Your task to perform on an android device: Open privacy settings Image 0: 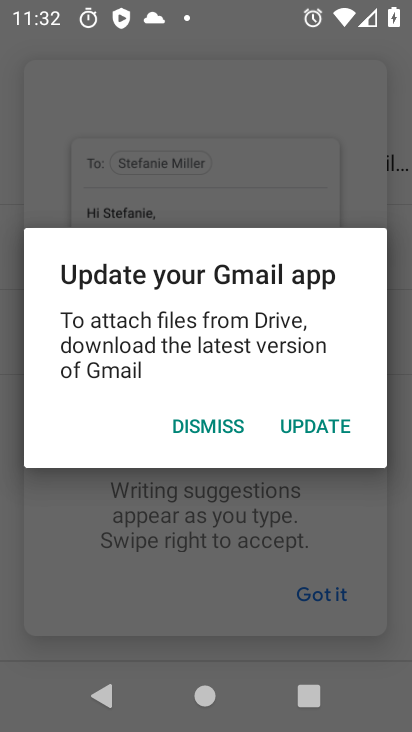
Step 0: press home button
Your task to perform on an android device: Open privacy settings Image 1: 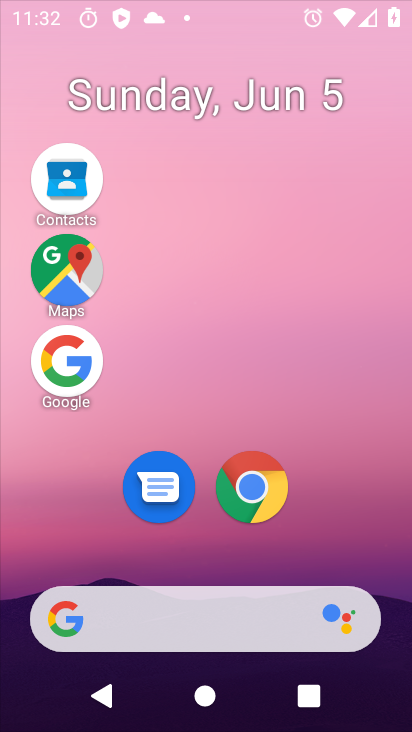
Step 1: drag from (220, 666) to (259, 2)
Your task to perform on an android device: Open privacy settings Image 2: 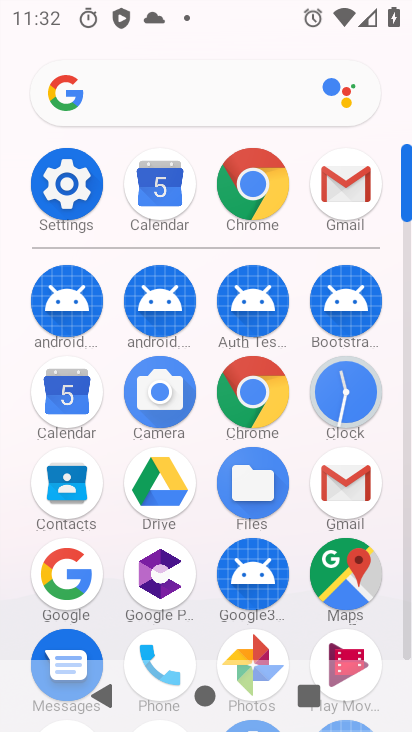
Step 2: click (94, 195)
Your task to perform on an android device: Open privacy settings Image 3: 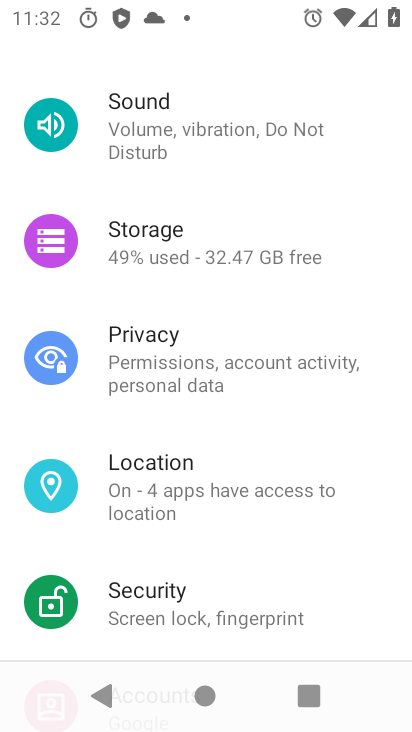
Step 3: drag from (173, 513) to (193, 369)
Your task to perform on an android device: Open privacy settings Image 4: 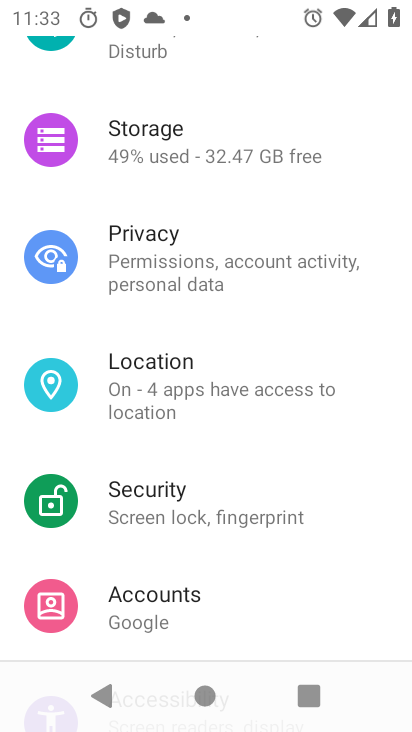
Step 4: click (194, 287)
Your task to perform on an android device: Open privacy settings Image 5: 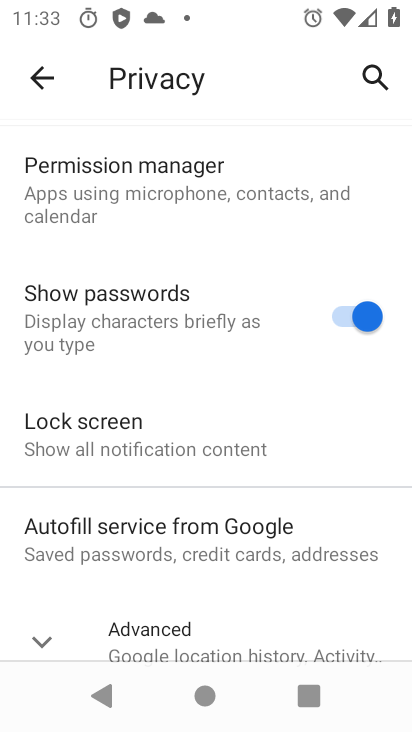
Step 5: task complete